Your task to perform on an android device: Open wifi settings Image 0: 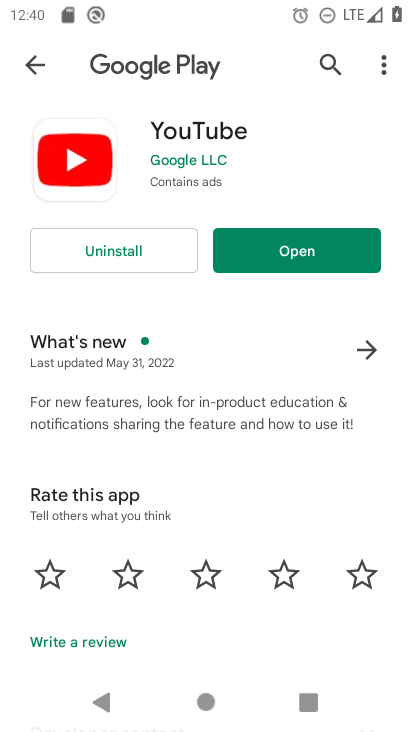
Step 0: press home button
Your task to perform on an android device: Open wifi settings Image 1: 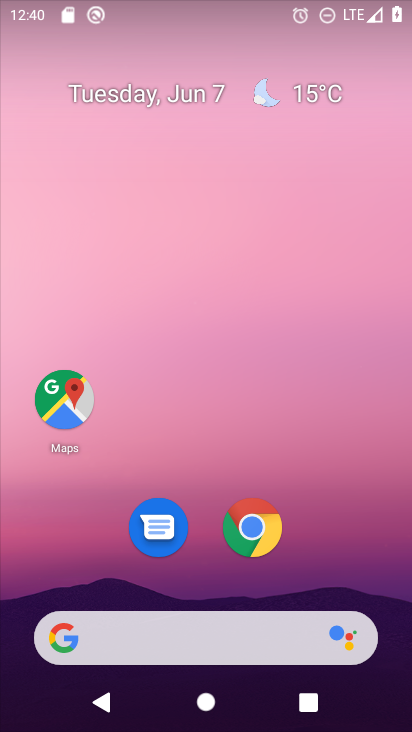
Step 1: drag from (346, 555) to (351, 95)
Your task to perform on an android device: Open wifi settings Image 2: 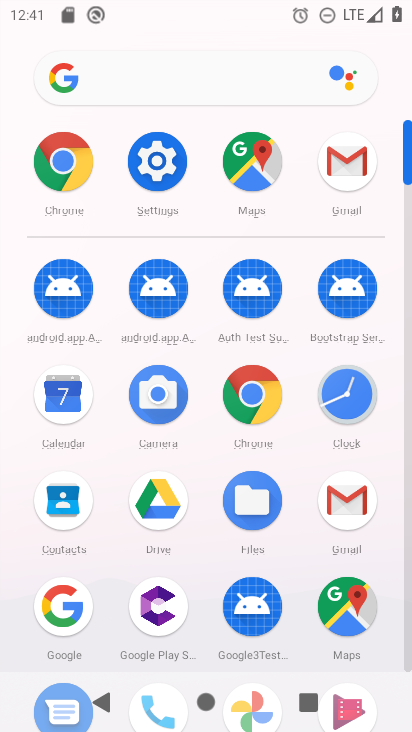
Step 2: click (169, 167)
Your task to perform on an android device: Open wifi settings Image 3: 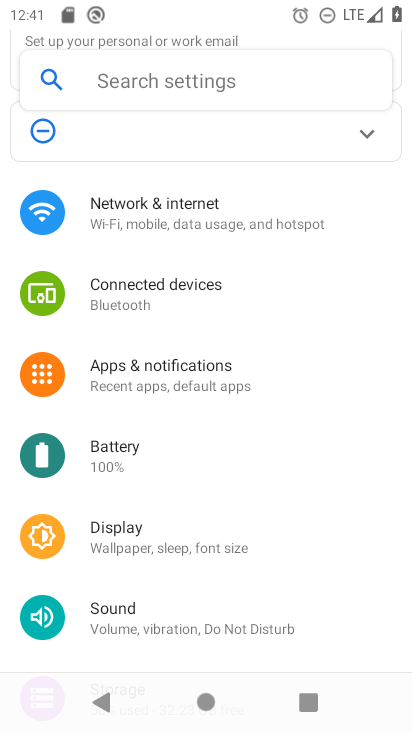
Step 3: click (265, 217)
Your task to perform on an android device: Open wifi settings Image 4: 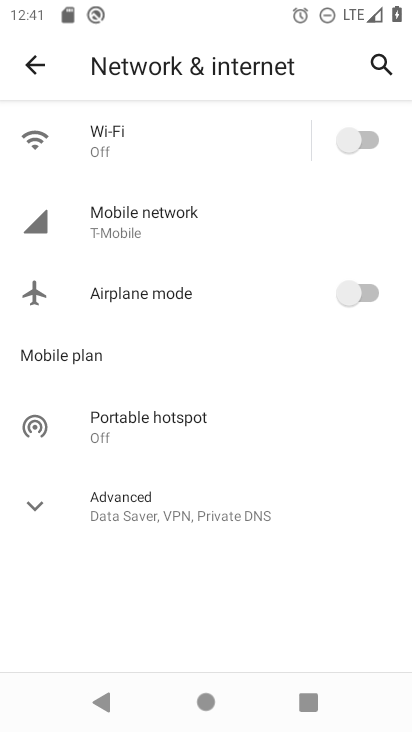
Step 4: click (160, 147)
Your task to perform on an android device: Open wifi settings Image 5: 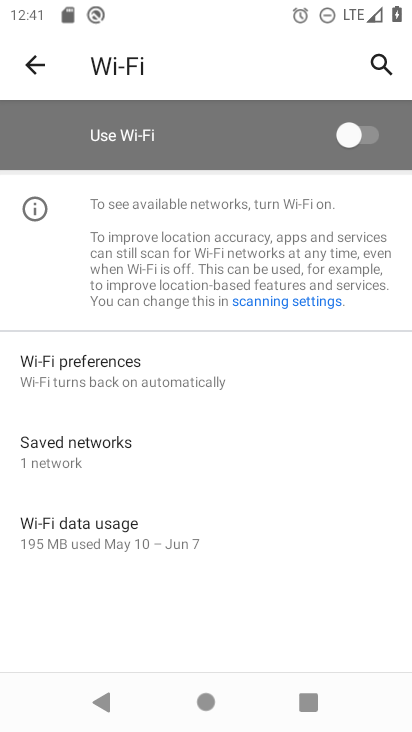
Step 5: task complete